Your task to perform on an android device: turn off location Image 0: 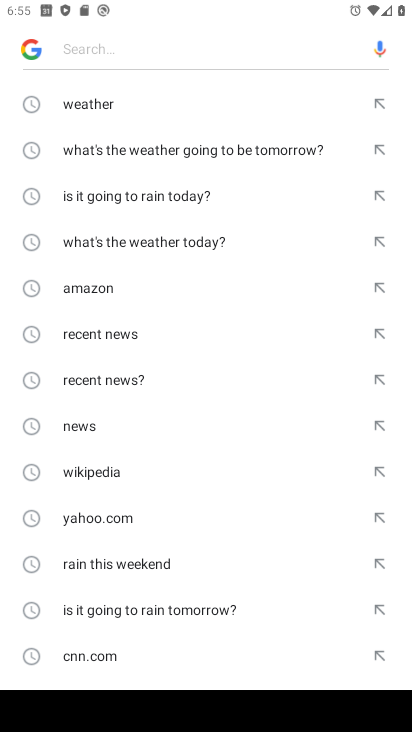
Step 0: press home button
Your task to perform on an android device: turn off location Image 1: 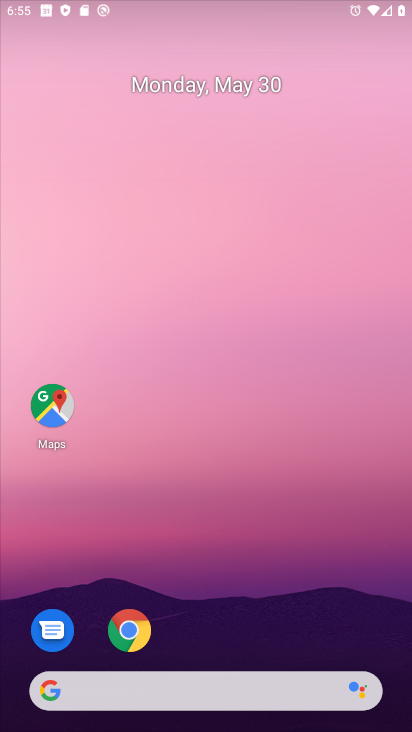
Step 1: drag from (338, 608) to (309, 18)
Your task to perform on an android device: turn off location Image 2: 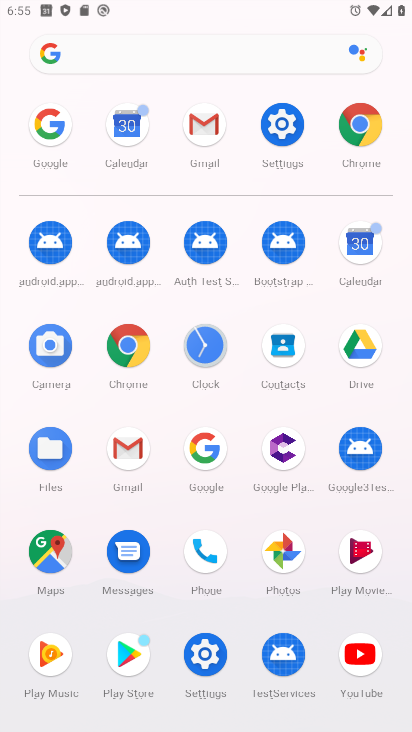
Step 2: click (210, 661)
Your task to perform on an android device: turn off location Image 3: 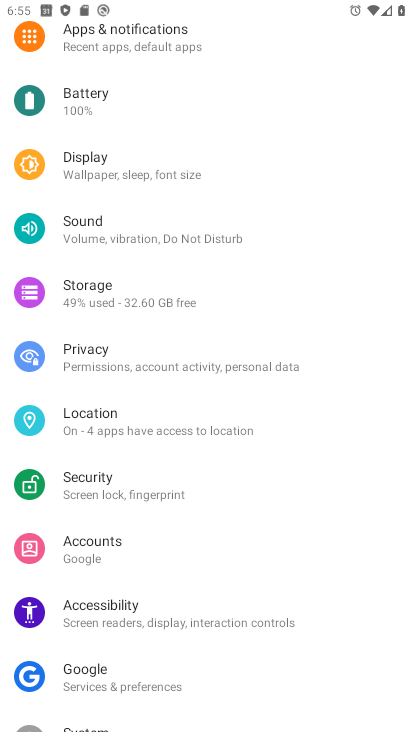
Step 3: click (96, 427)
Your task to perform on an android device: turn off location Image 4: 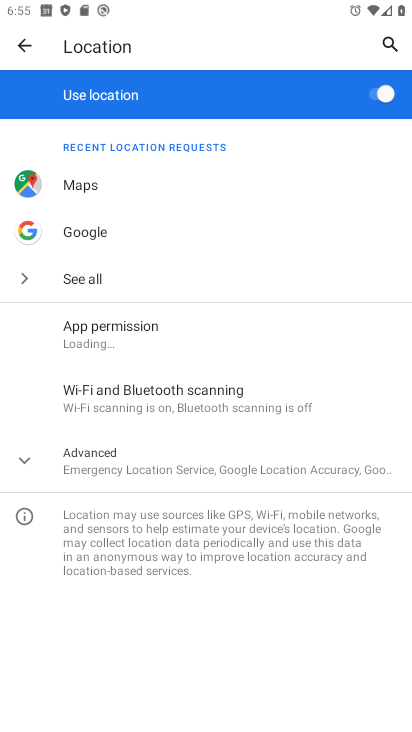
Step 4: click (349, 93)
Your task to perform on an android device: turn off location Image 5: 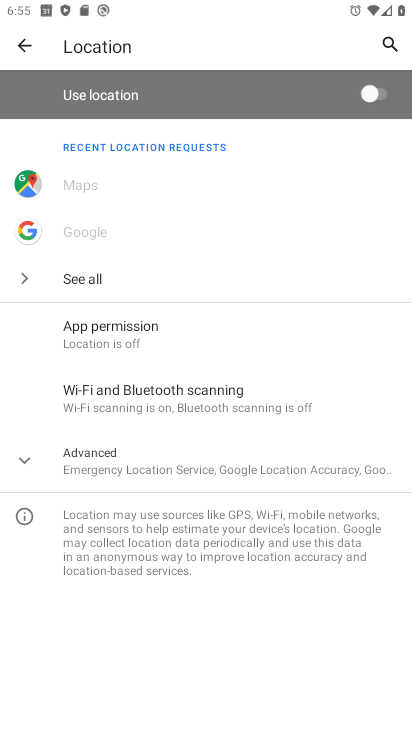
Step 5: task complete